Your task to perform on an android device: move an email to a new category in the gmail app Image 0: 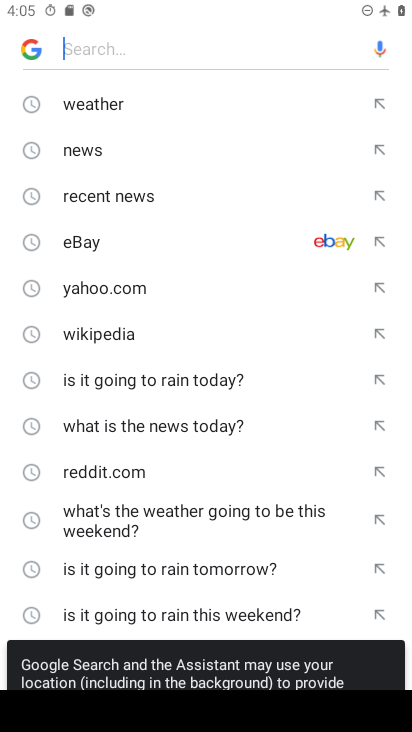
Step 0: press home button
Your task to perform on an android device: move an email to a new category in the gmail app Image 1: 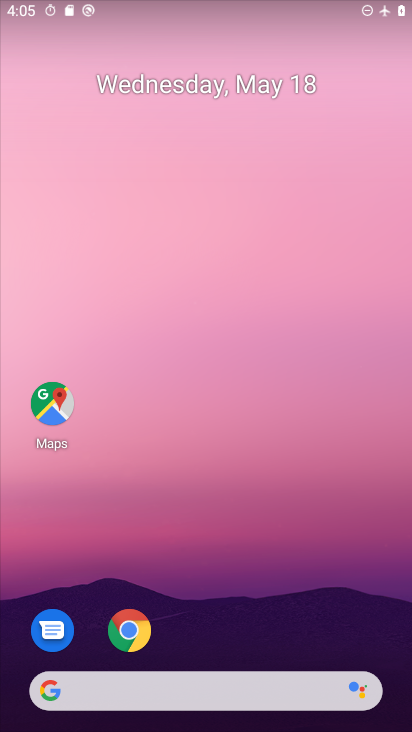
Step 1: drag from (235, 637) to (269, 88)
Your task to perform on an android device: move an email to a new category in the gmail app Image 2: 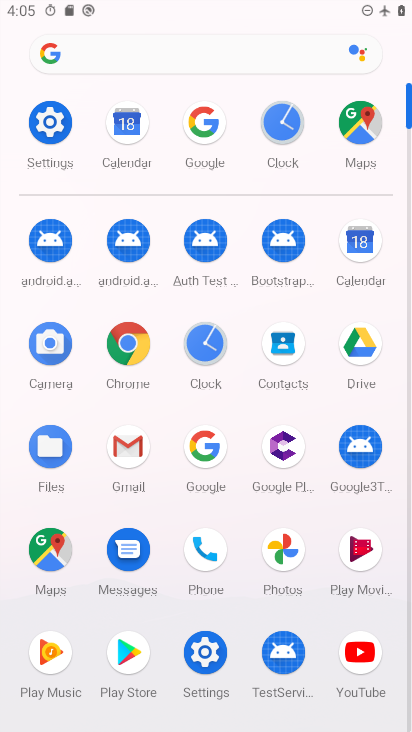
Step 2: click (124, 439)
Your task to perform on an android device: move an email to a new category in the gmail app Image 3: 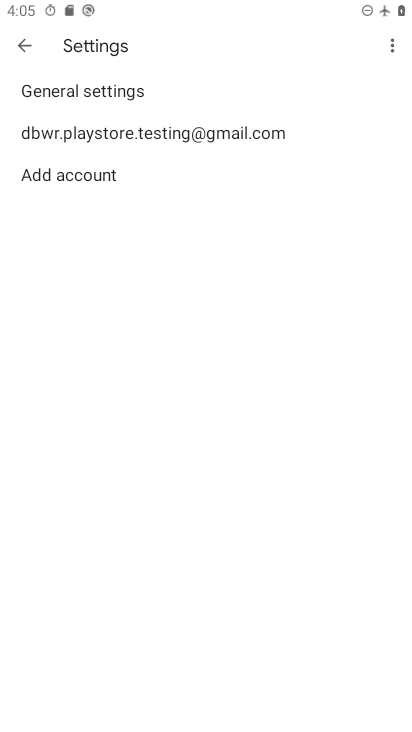
Step 3: click (20, 36)
Your task to perform on an android device: move an email to a new category in the gmail app Image 4: 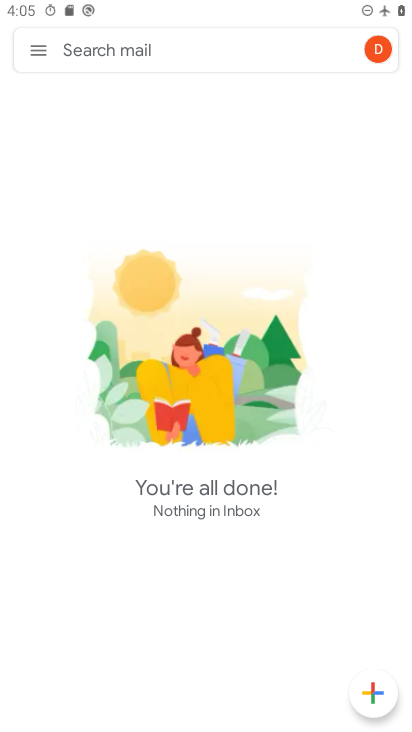
Step 4: task complete